Your task to perform on an android device: Open display settings Image 0: 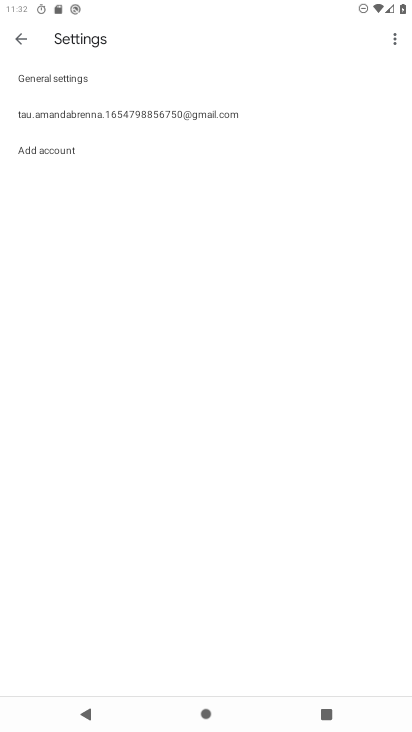
Step 0: press home button
Your task to perform on an android device: Open display settings Image 1: 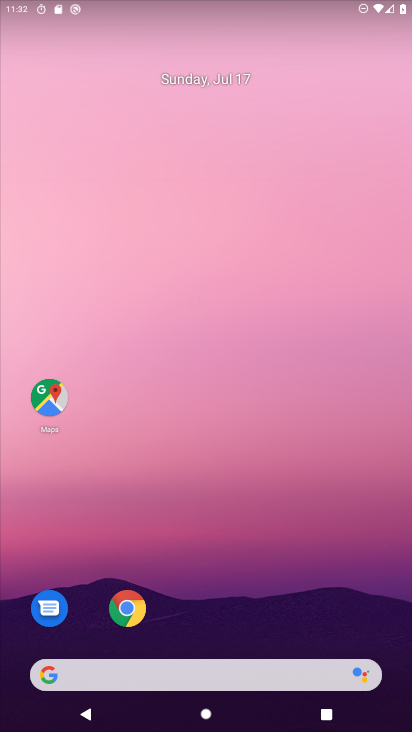
Step 1: drag from (248, 640) to (229, 49)
Your task to perform on an android device: Open display settings Image 2: 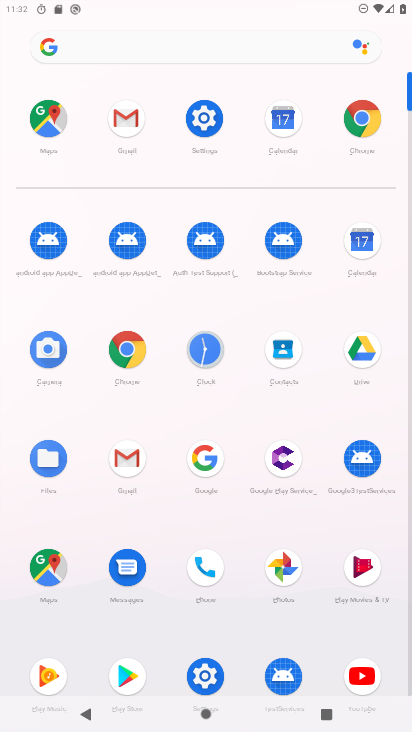
Step 2: click (198, 121)
Your task to perform on an android device: Open display settings Image 3: 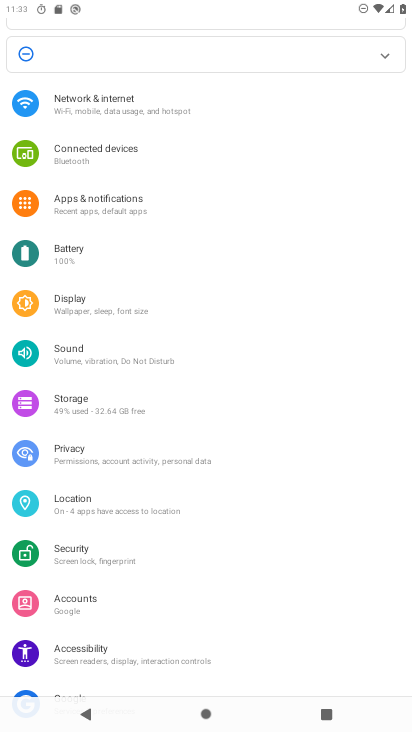
Step 3: click (93, 307)
Your task to perform on an android device: Open display settings Image 4: 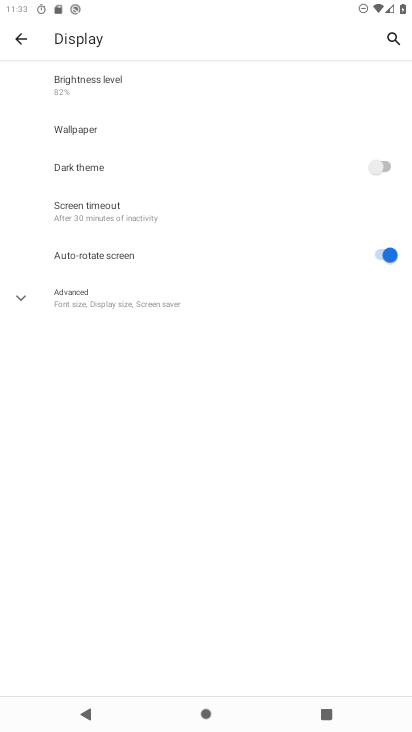
Step 4: task complete